Your task to perform on an android device: refresh tabs in the chrome app Image 0: 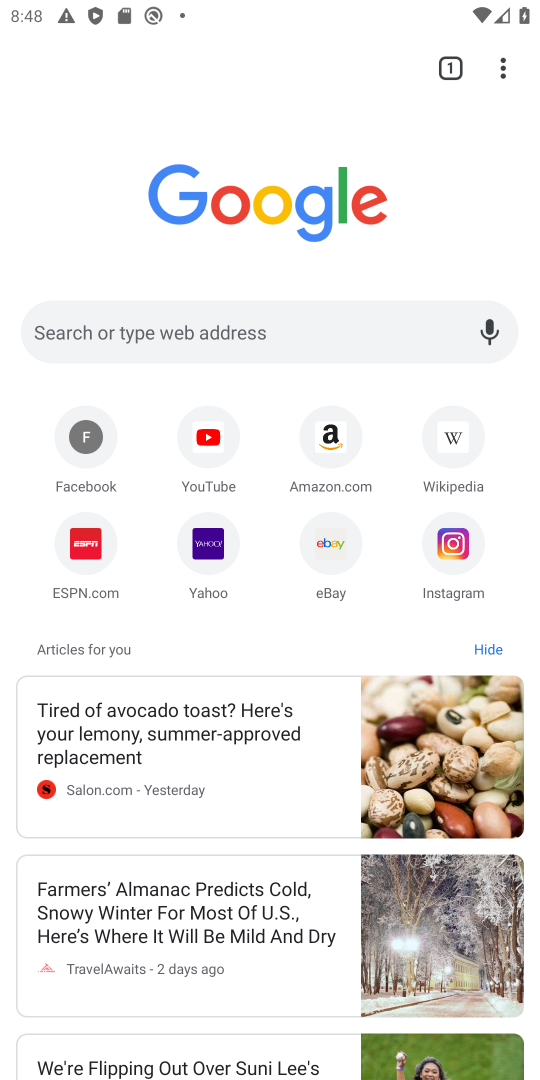
Step 0: click (496, 75)
Your task to perform on an android device: refresh tabs in the chrome app Image 1: 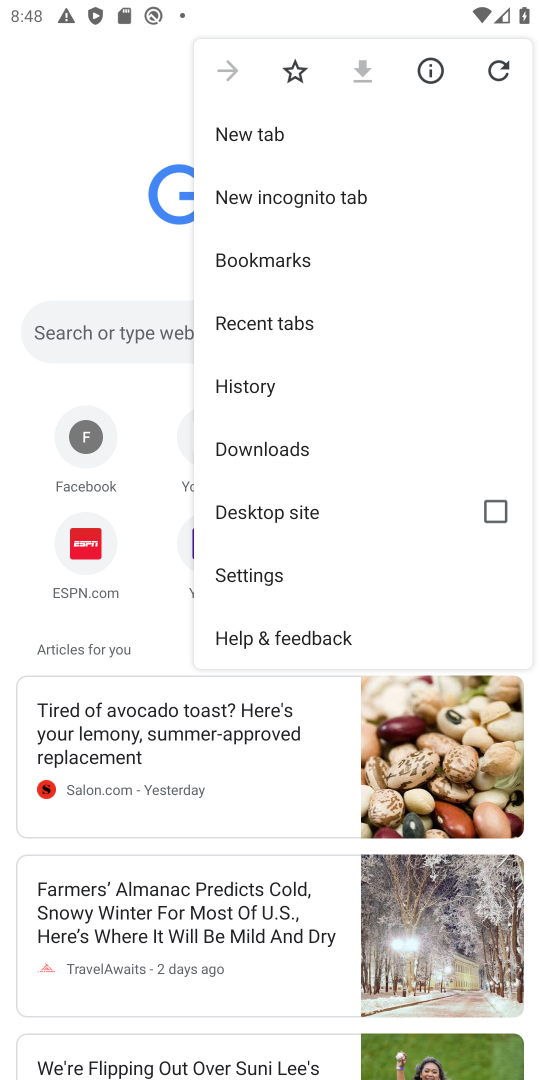
Step 1: click (495, 77)
Your task to perform on an android device: refresh tabs in the chrome app Image 2: 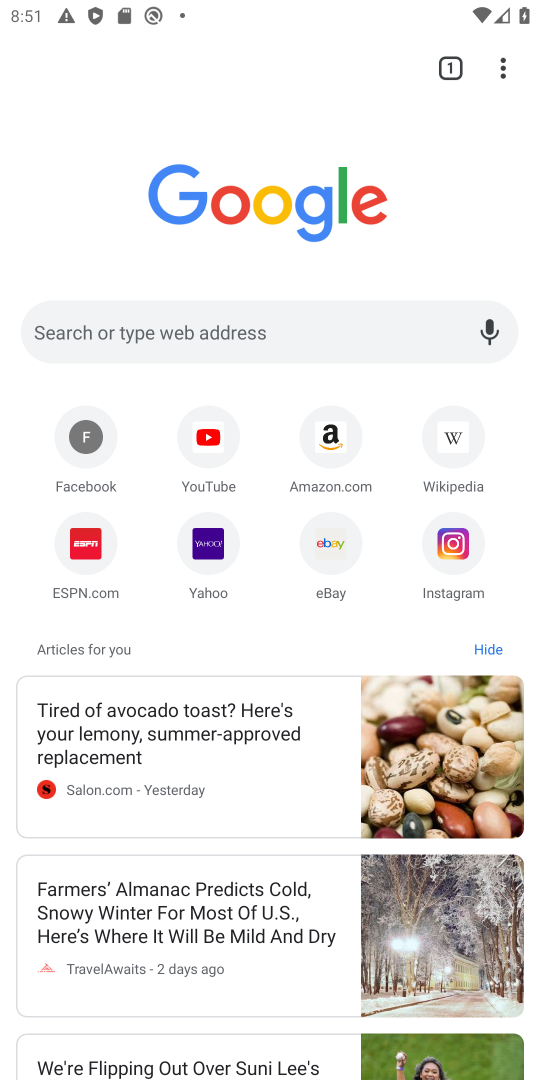
Step 2: task complete